Your task to perform on an android device: Go to Yahoo.com Image 0: 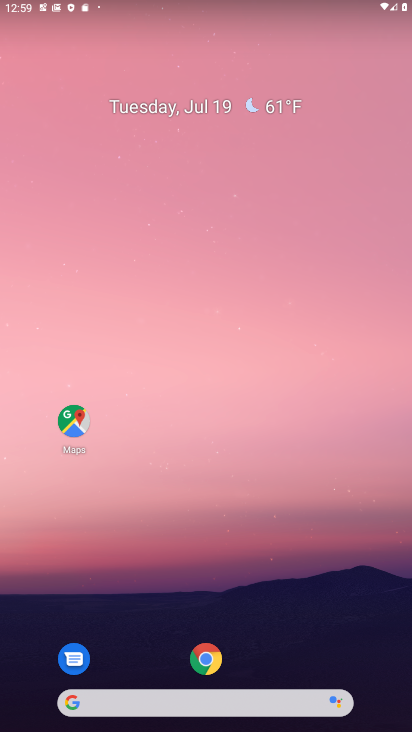
Step 0: click (227, 378)
Your task to perform on an android device: Go to Yahoo.com Image 1: 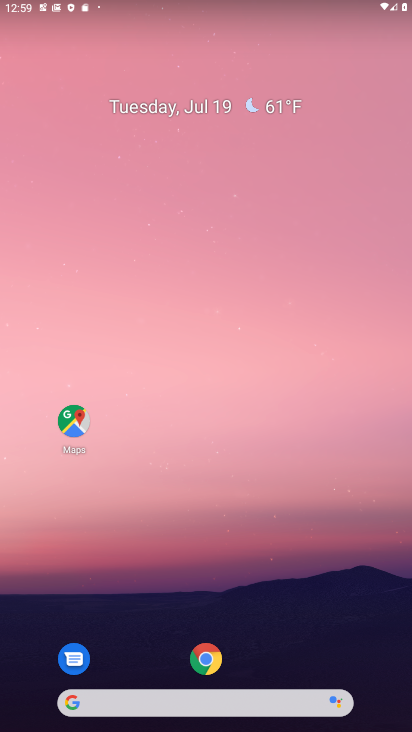
Step 1: click (211, 658)
Your task to perform on an android device: Go to Yahoo.com Image 2: 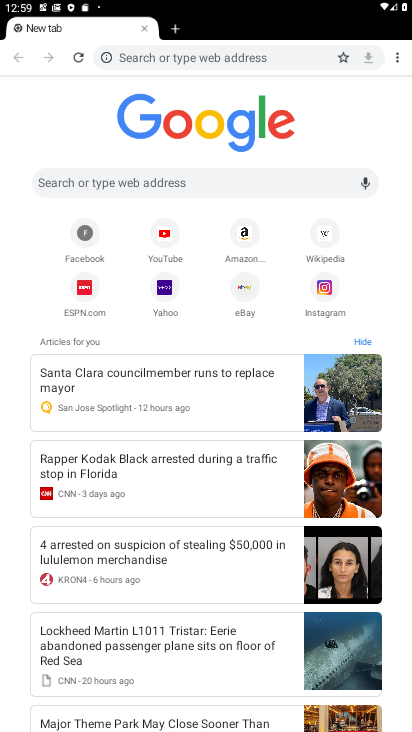
Step 2: click (121, 176)
Your task to perform on an android device: Go to Yahoo.com Image 3: 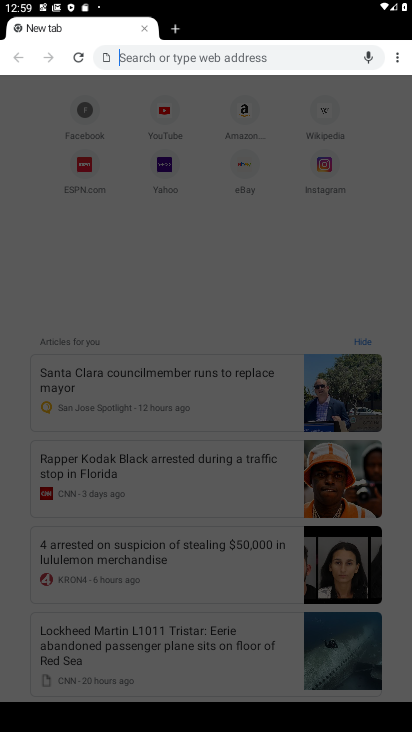
Step 3: type "Yahoo.com"
Your task to perform on an android device: Go to Yahoo.com Image 4: 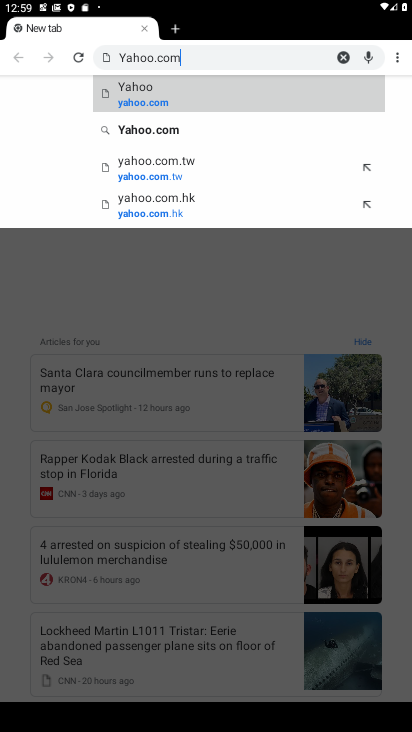
Step 4: click (139, 124)
Your task to perform on an android device: Go to Yahoo.com Image 5: 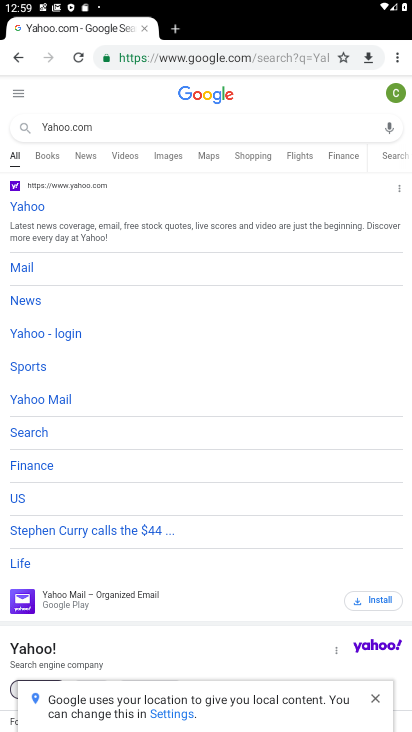
Step 5: task complete